Your task to perform on an android device: find snoozed emails in the gmail app Image 0: 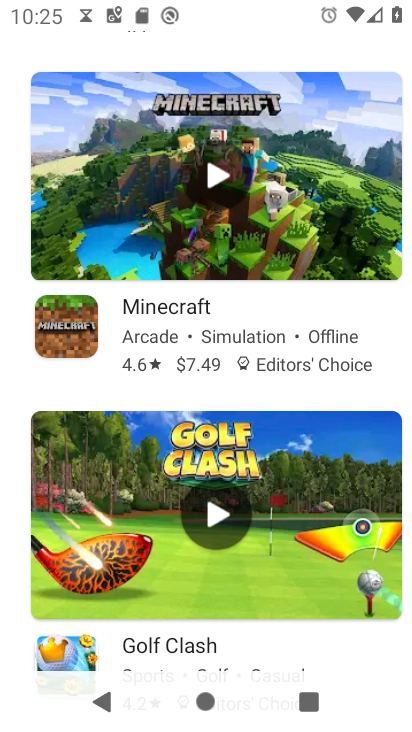
Step 0: press home button
Your task to perform on an android device: find snoozed emails in the gmail app Image 1: 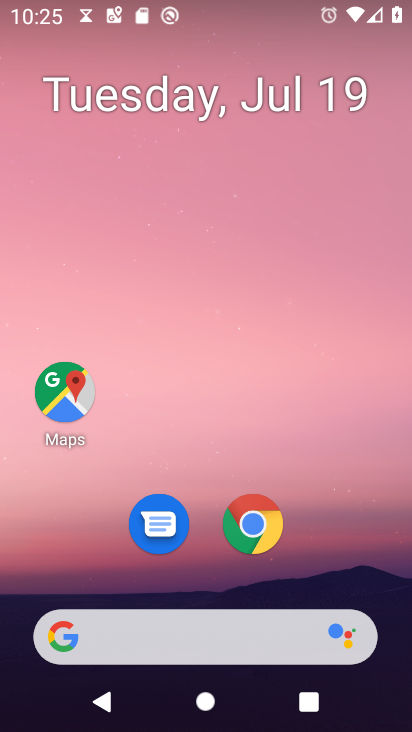
Step 1: drag from (199, 627) to (298, 86)
Your task to perform on an android device: find snoozed emails in the gmail app Image 2: 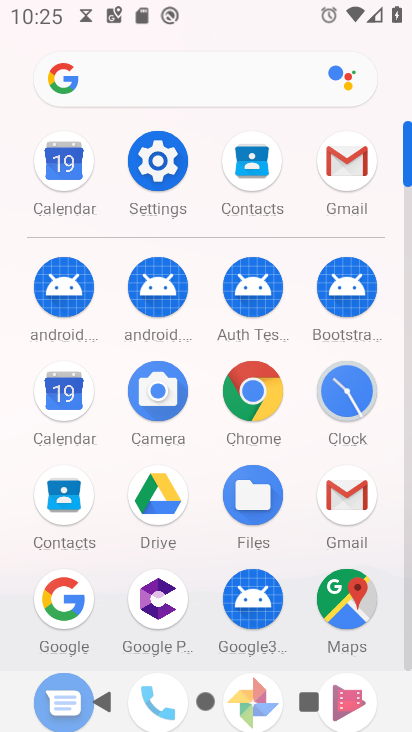
Step 2: click (361, 169)
Your task to perform on an android device: find snoozed emails in the gmail app Image 3: 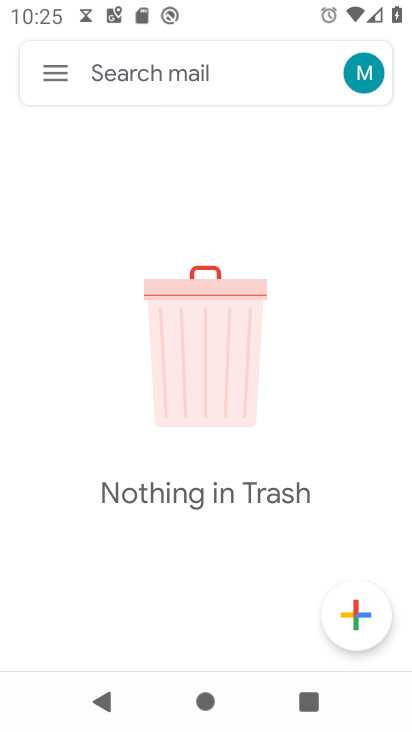
Step 3: click (55, 69)
Your task to perform on an android device: find snoozed emails in the gmail app Image 4: 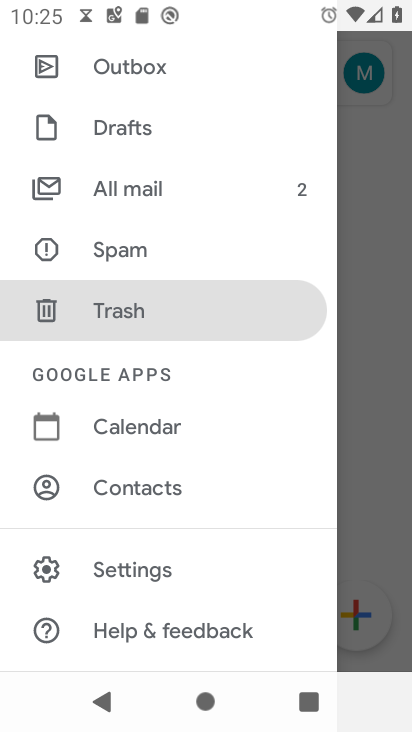
Step 4: drag from (221, 79) to (204, 527)
Your task to perform on an android device: find snoozed emails in the gmail app Image 5: 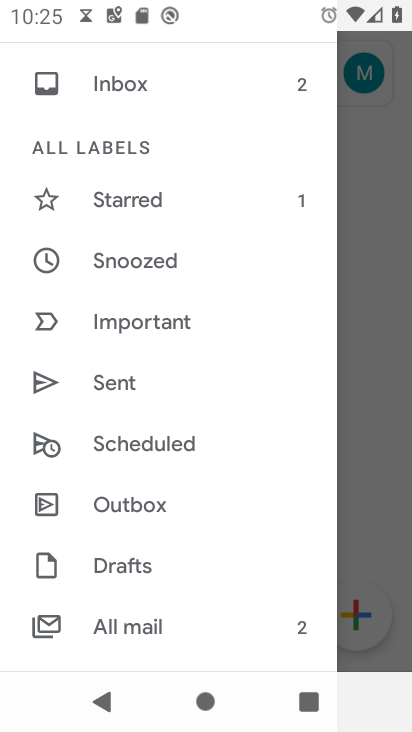
Step 5: click (155, 267)
Your task to perform on an android device: find snoozed emails in the gmail app Image 6: 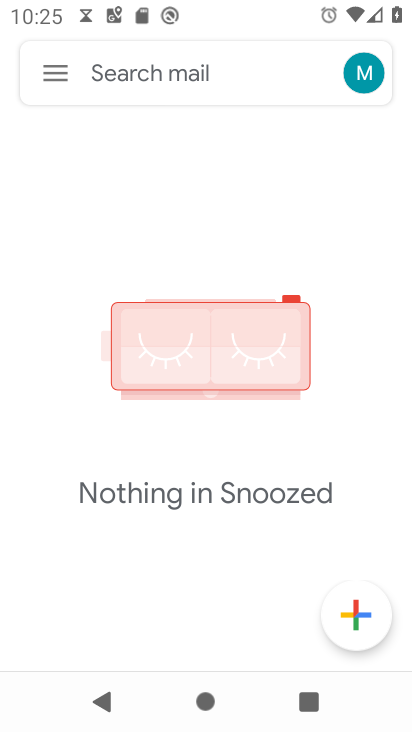
Step 6: task complete